Your task to perform on an android device: When is my next meeting? Image 0: 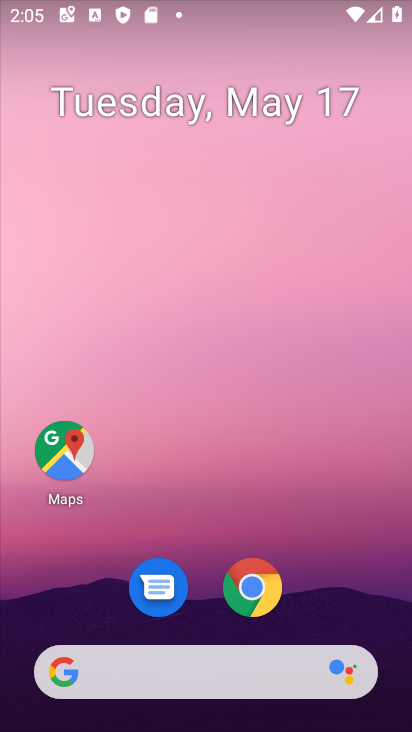
Step 0: click (213, 229)
Your task to perform on an android device: When is my next meeting? Image 1: 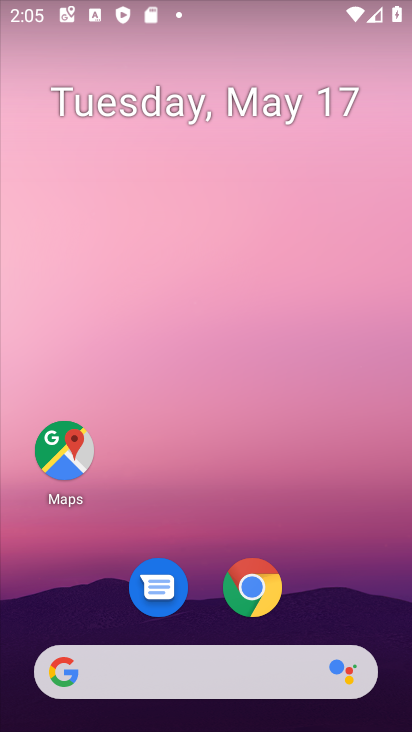
Step 1: drag from (214, 613) to (277, 191)
Your task to perform on an android device: When is my next meeting? Image 2: 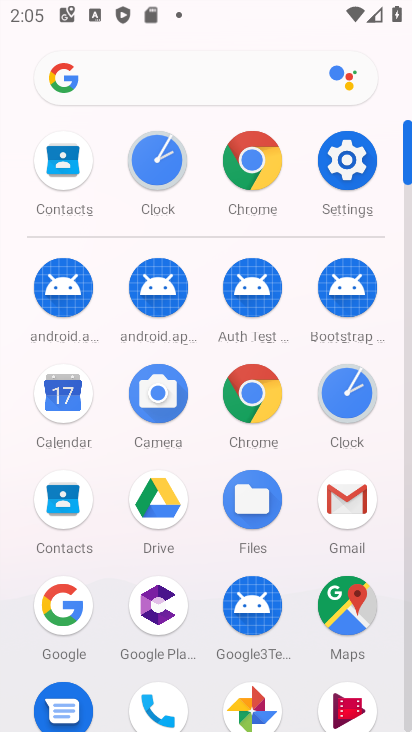
Step 2: click (84, 392)
Your task to perform on an android device: When is my next meeting? Image 3: 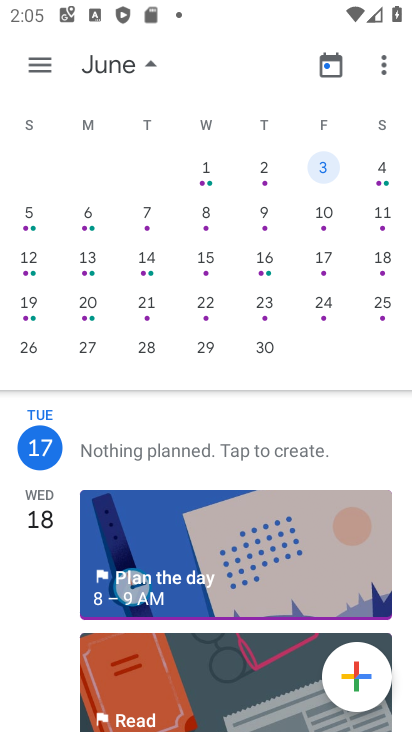
Step 3: click (321, 214)
Your task to perform on an android device: When is my next meeting? Image 4: 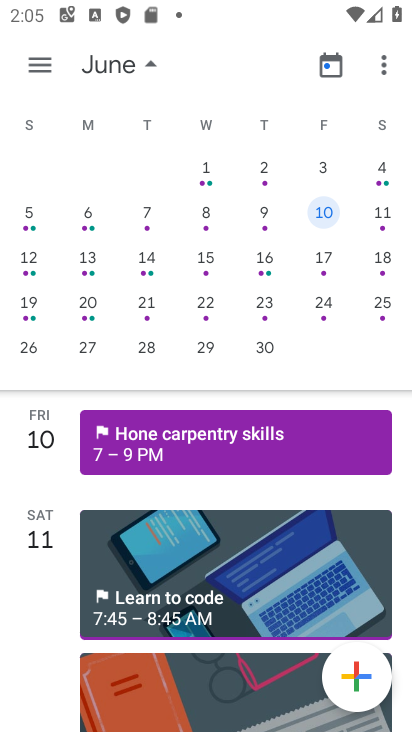
Step 4: drag from (344, 275) to (256, 275)
Your task to perform on an android device: When is my next meeting? Image 5: 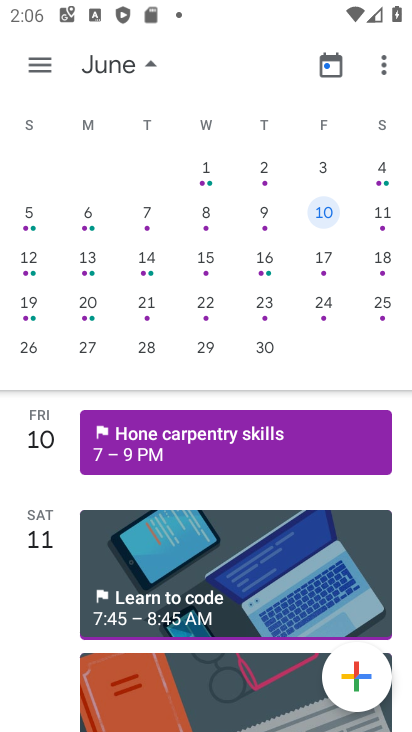
Step 5: drag from (240, 556) to (270, 418)
Your task to perform on an android device: When is my next meeting? Image 6: 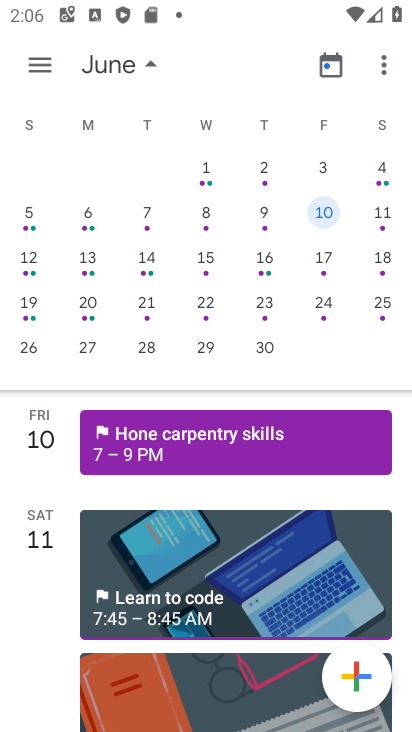
Step 6: click (319, 219)
Your task to perform on an android device: When is my next meeting? Image 7: 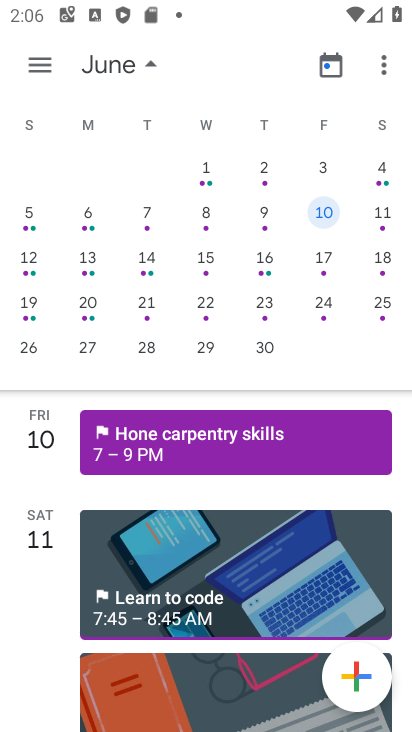
Step 7: drag from (105, 281) to (391, 293)
Your task to perform on an android device: When is my next meeting? Image 8: 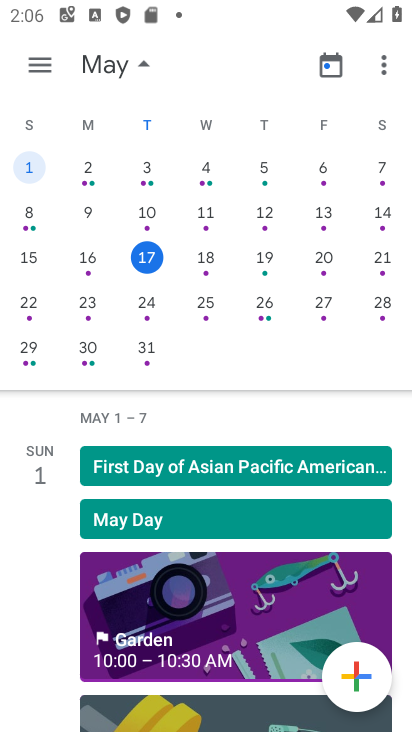
Step 8: click (152, 252)
Your task to perform on an android device: When is my next meeting? Image 9: 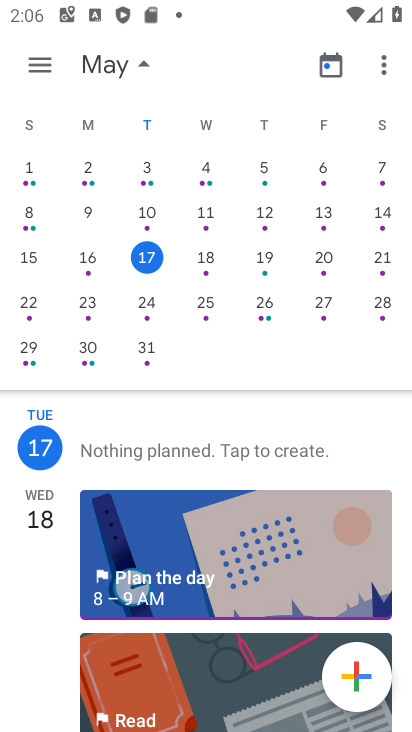
Step 9: drag from (270, 402) to (339, 160)
Your task to perform on an android device: When is my next meeting? Image 10: 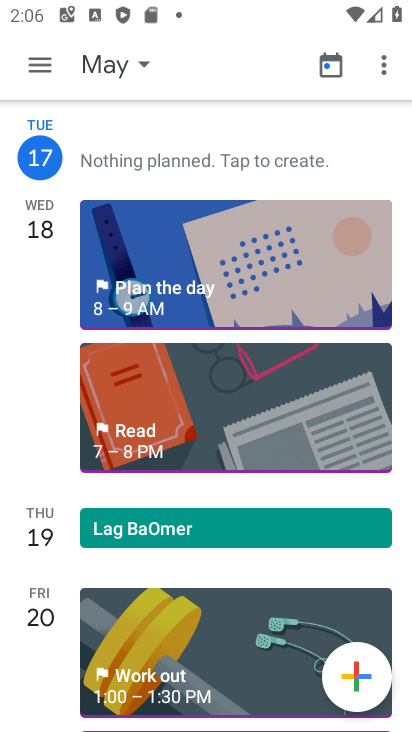
Step 10: click (282, 241)
Your task to perform on an android device: When is my next meeting? Image 11: 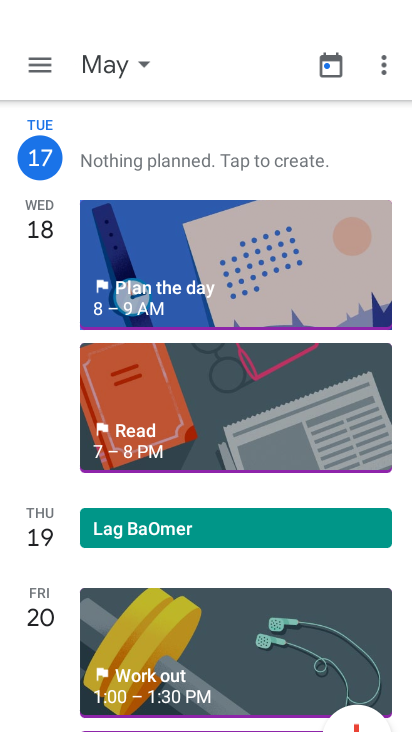
Step 11: task complete